Your task to perform on an android device: set default search engine in the chrome app Image 0: 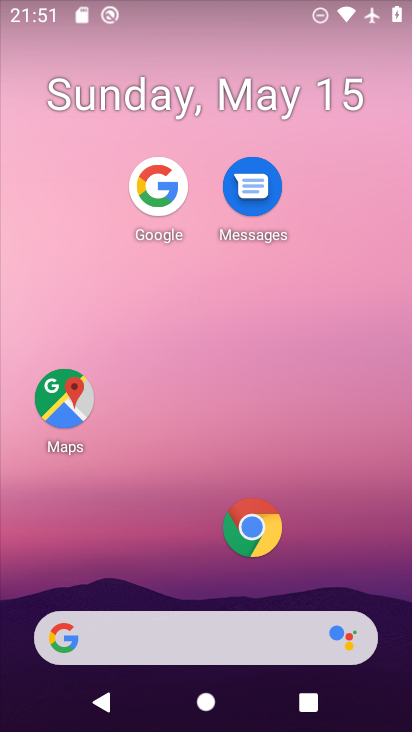
Step 0: press home button
Your task to perform on an android device: set default search engine in the chrome app Image 1: 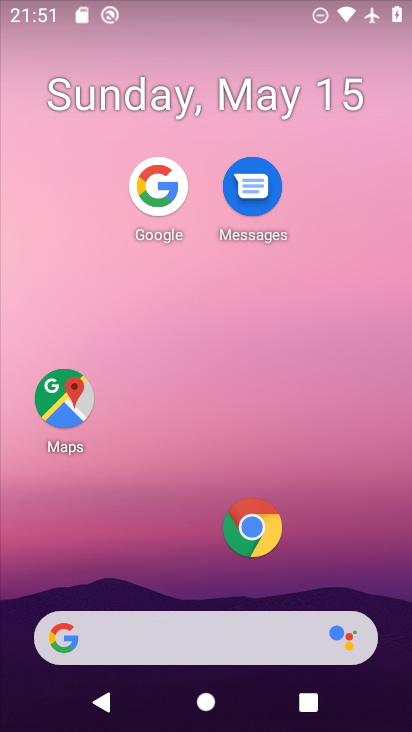
Step 1: click (247, 532)
Your task to perform on an android device: set default search engine in the chrome app Image 2: 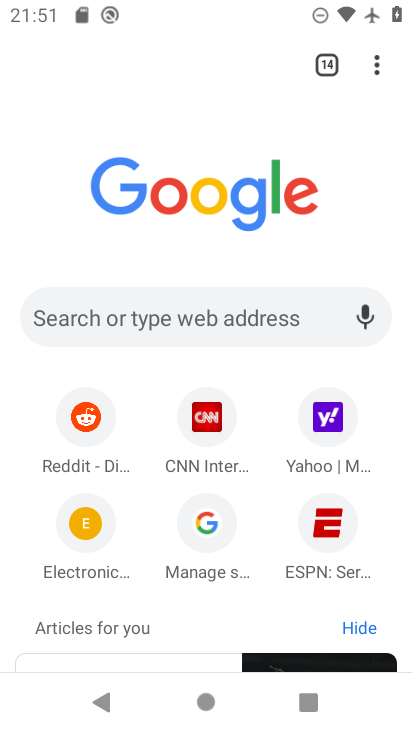
Step 2: drag from (379, 72) to (199, 536)
Your task to perform on an android device: set default search engine in the chrome app Image 3: 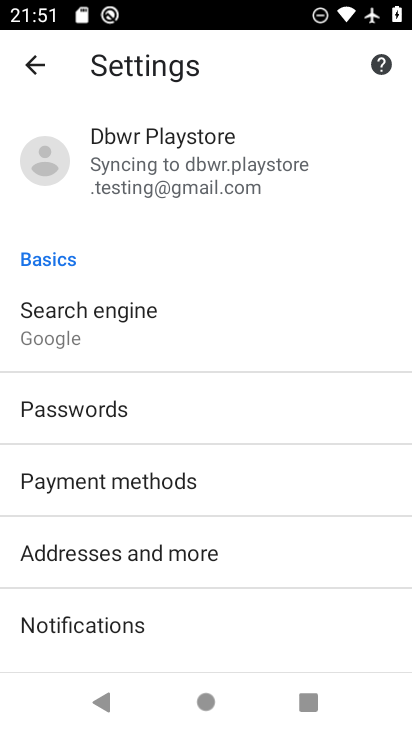
Step 3: click (135, 338)
Your task to perform on an android device: set default search engine in the chrome app Image 4: 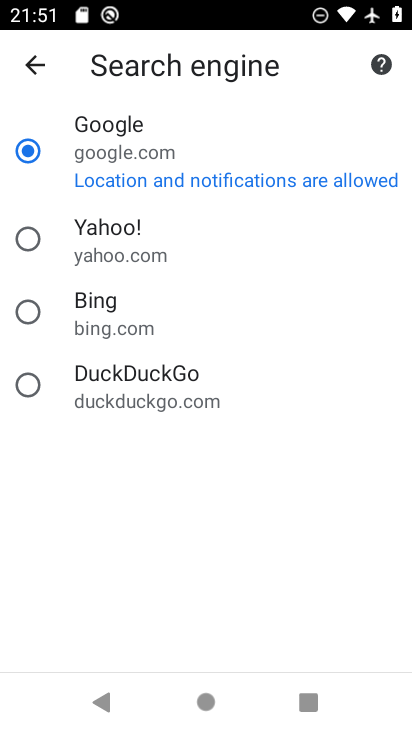
Step 4: click (30, 227)
Your task to perform on an android device: set default search engine in the chrome app Image 5: 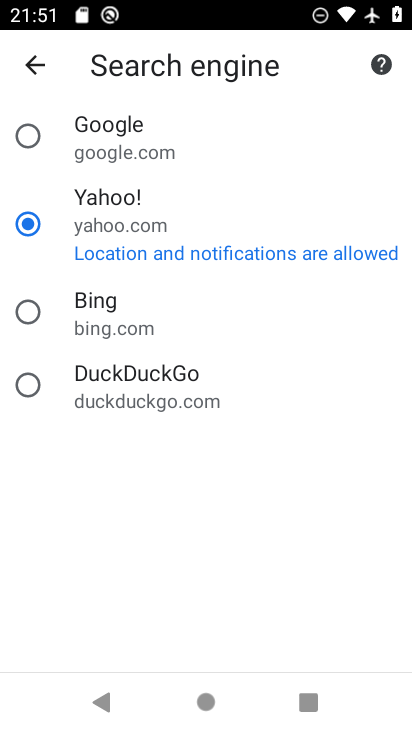
Step 5: task complete